Your task to perform on an android device: Is it going to rain this weekend? Image 0: 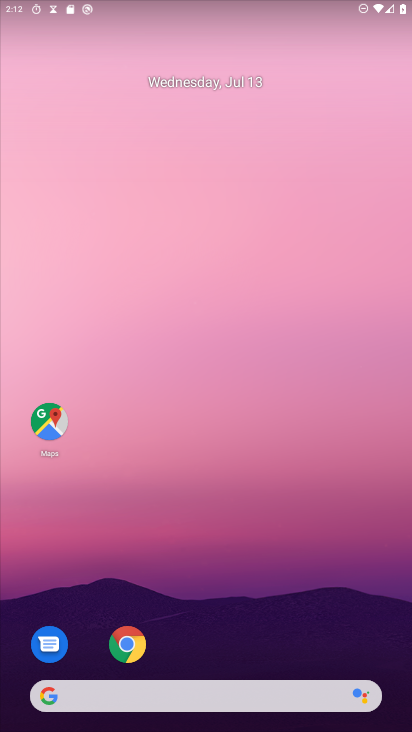
Step 0: press home button
Your task to perform on an android device: Is it going to rain this weekend? Image 1: 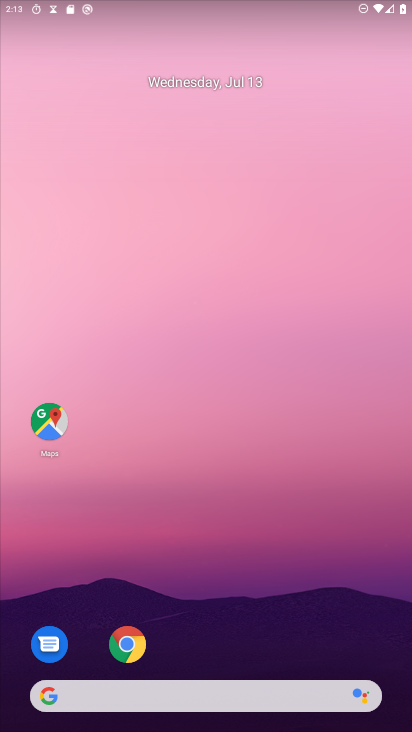
Step 1: click (145, 706)
Your task to perform on an android device: Is it going to rain this weekend? Image 2: 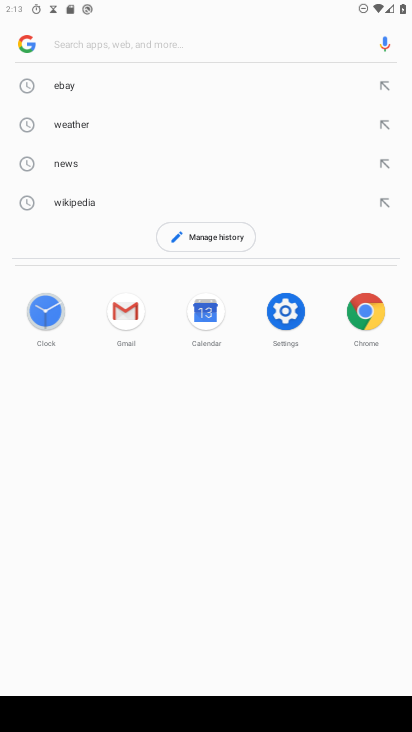
Step 2: type "Is it going to rain this weekend?"
Your task to perform on an android device: Is it going to rain this weekend? Image 3: 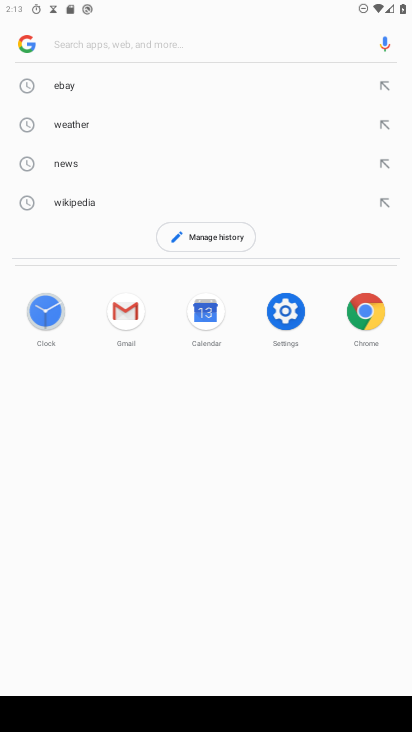
Step 3: click (118, 36)
Your task to perform on an android device: Is it going to rain this weekend? Image 4: 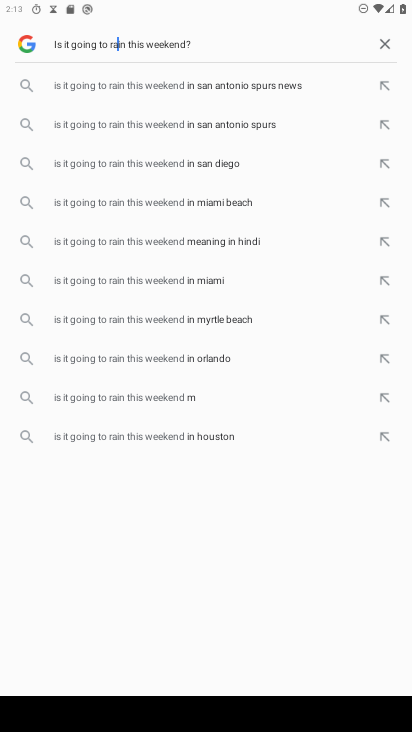
Step 4: press enter
Your task to perform on an android device: Is it going to rain this weekend? Image 5: 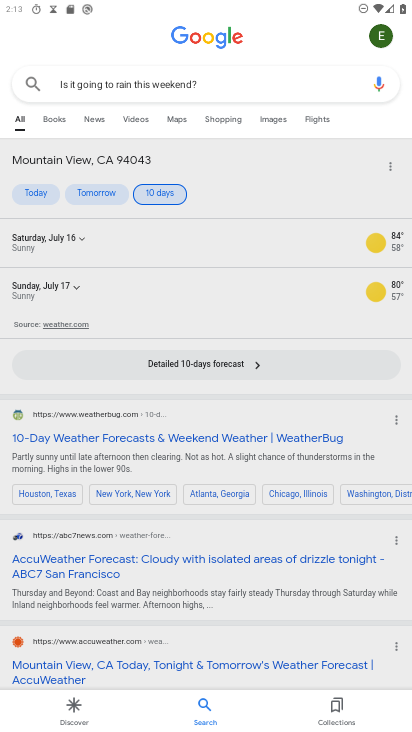
Step 5: task complete